Your task to perform on an android device: Search for vegetarian restaurants on Maps Image 0: 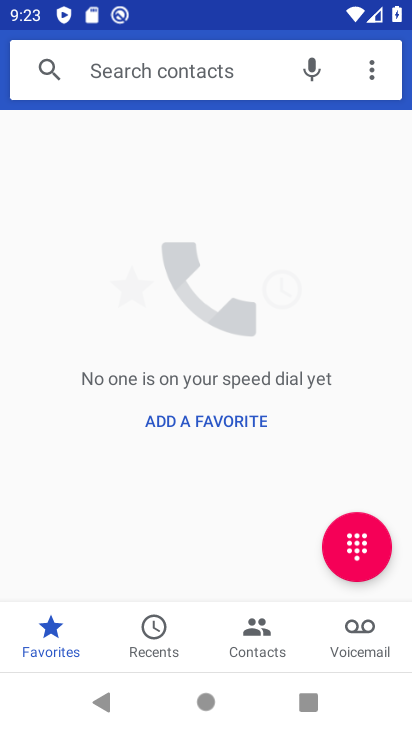
Step 0: press home button
Your task to perform on an android device: Search for vegetarian restaurants on Maps Image 1: 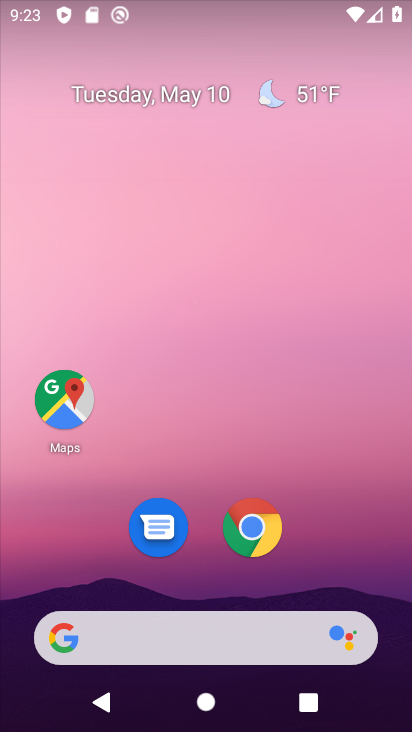
Step 1: drag from (221, 723) to (224, 91)
Your task to perform on an android device: Search for vegetarian restaurants on Maps Image 2: 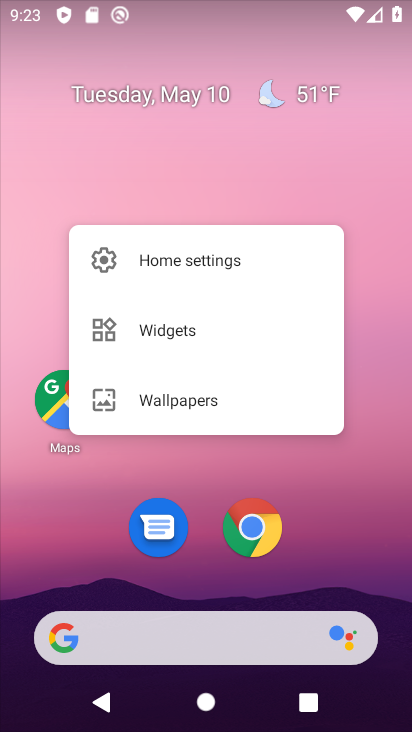
Step 2: click (286, 471)
Your task to perform on an android device: Search for vegetarian restaurants on Maps Image 3: 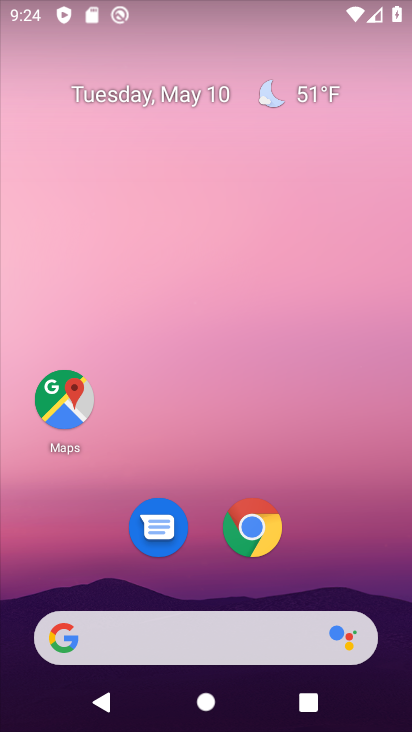
Step 3: drag from (209, 727) to (210, 187)
Your task to perform on an android device: Search for vegetarian restaurants on Maps Image 4: 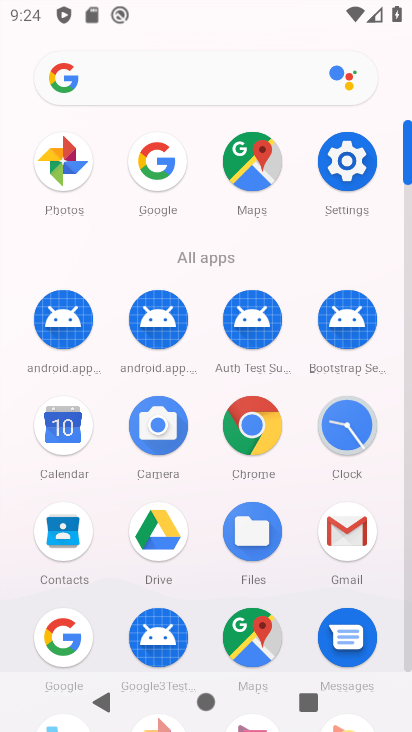
Step 4: click (254, 635)
Your task to perform on an android device: Search for vegetarian restaurants on Maps Image 5: 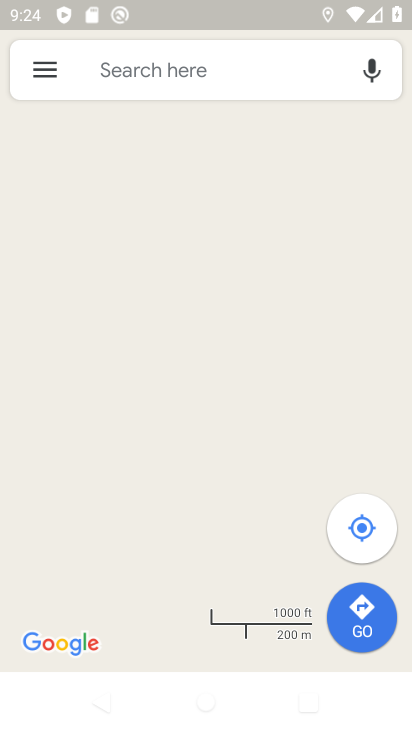
Step 5: click (197, 76)
Your task to perform on an android device: Search for vegetarian restaurants on Maps Image 6: 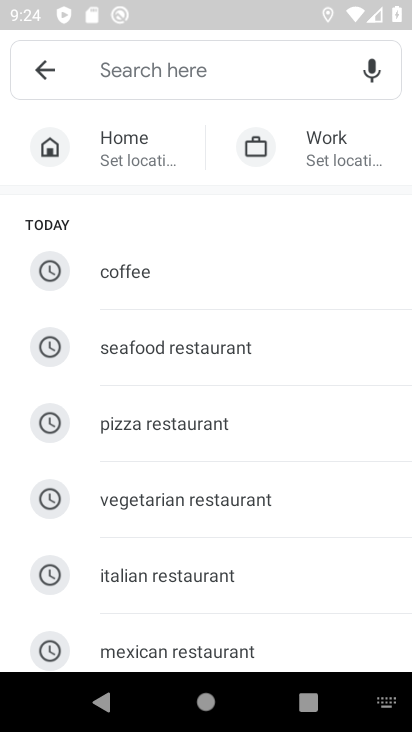
Step 6: type "vegetarian  restaurants"
Your task to perform on an android device: Search for vegetarian restaurants on Maps Image 7: 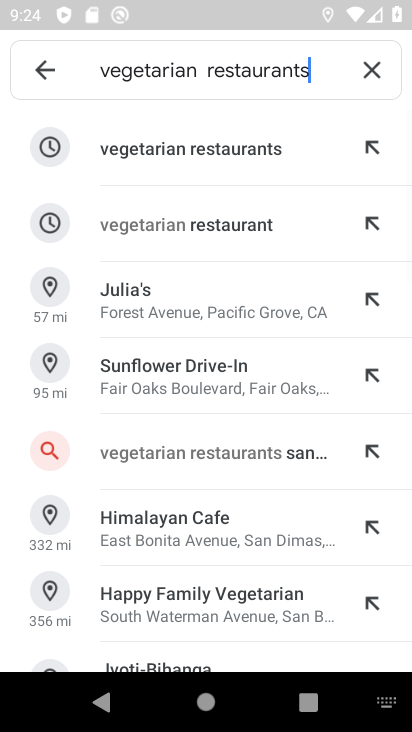
Step 7: click (158, 140)
Your task to perform on an android device: Search for vegetarian restaurants on Maps Image 8: 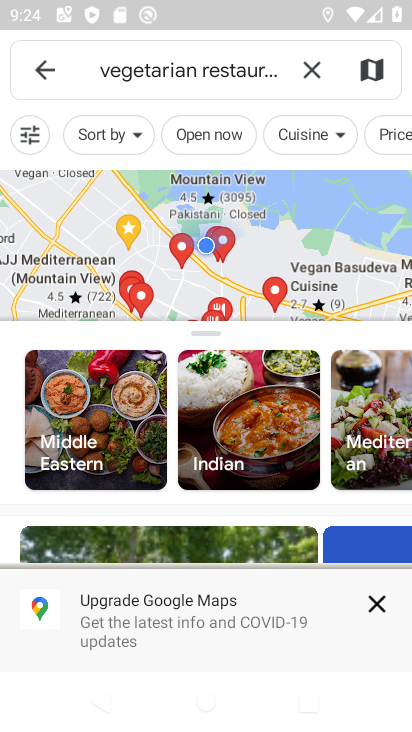
Step 8: task complete